Your task to perform on an android device: Search for cool wooden wall art on Etsy. Image 0: 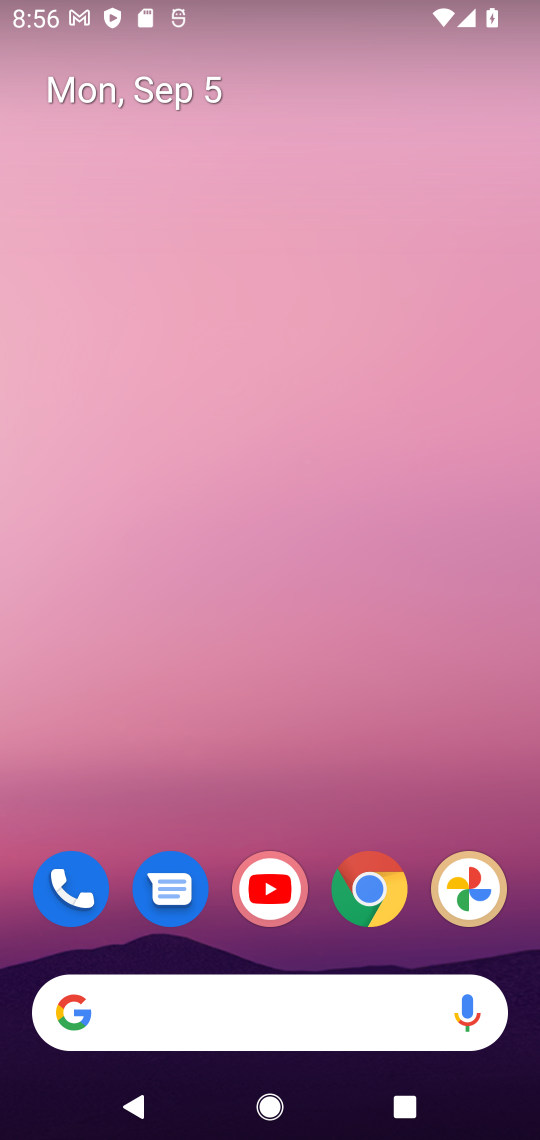
Step 0: click (242, 1022)
Your task to perform on an android device: Search for cool wooden wall art on Etsy. Image 1: 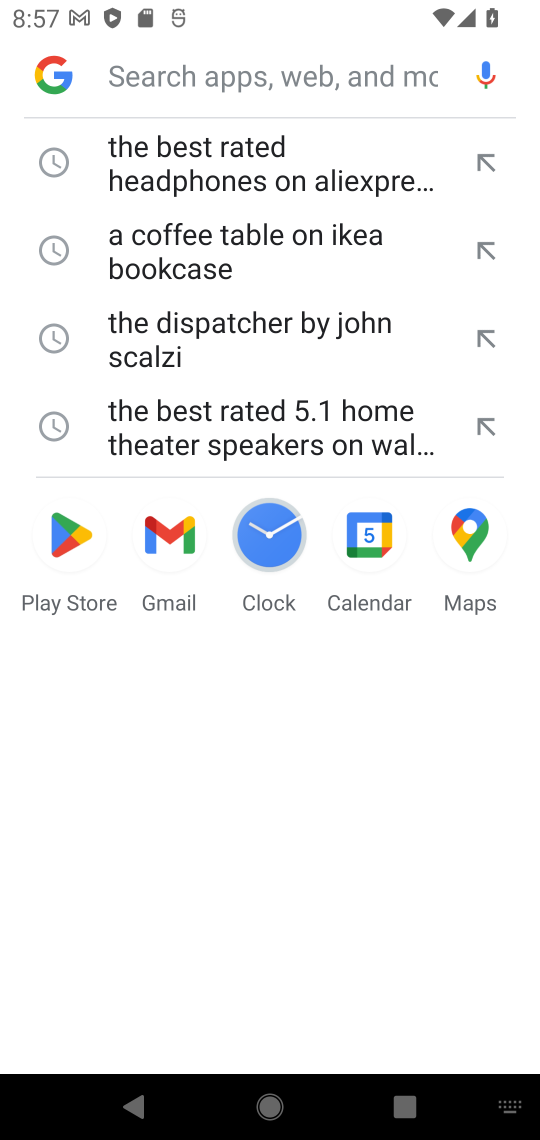
Step 1: type " cool wooden wall art on Etsy"
Your task to perform on an android device: Search for cool wooden wall art on Etsy. Image 2: 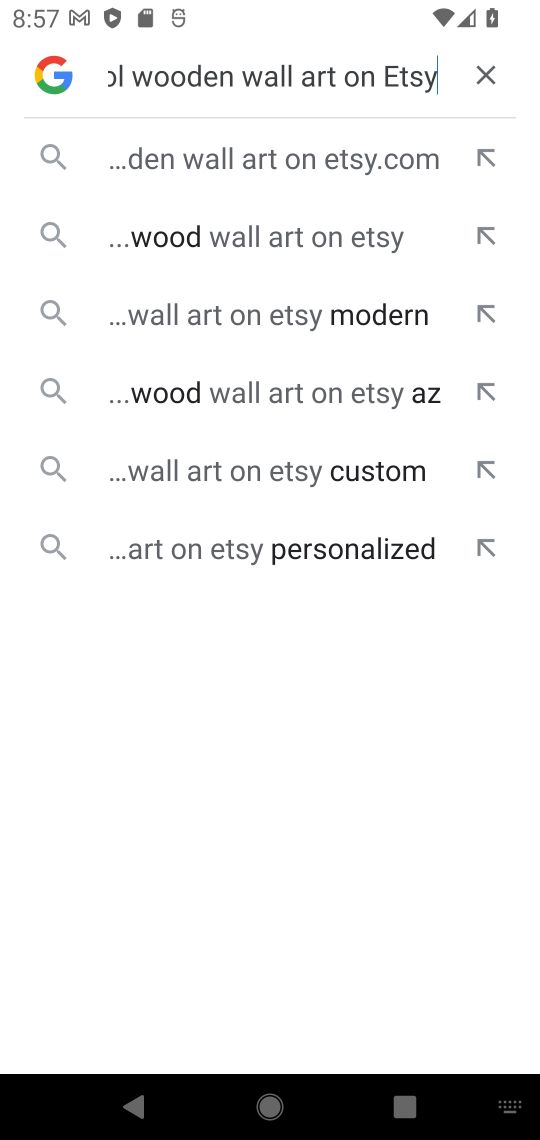
Step 2: click (162, 147)
Your task to perform on an android device: Search for cool wooden wall art on Etsy. Image 3: 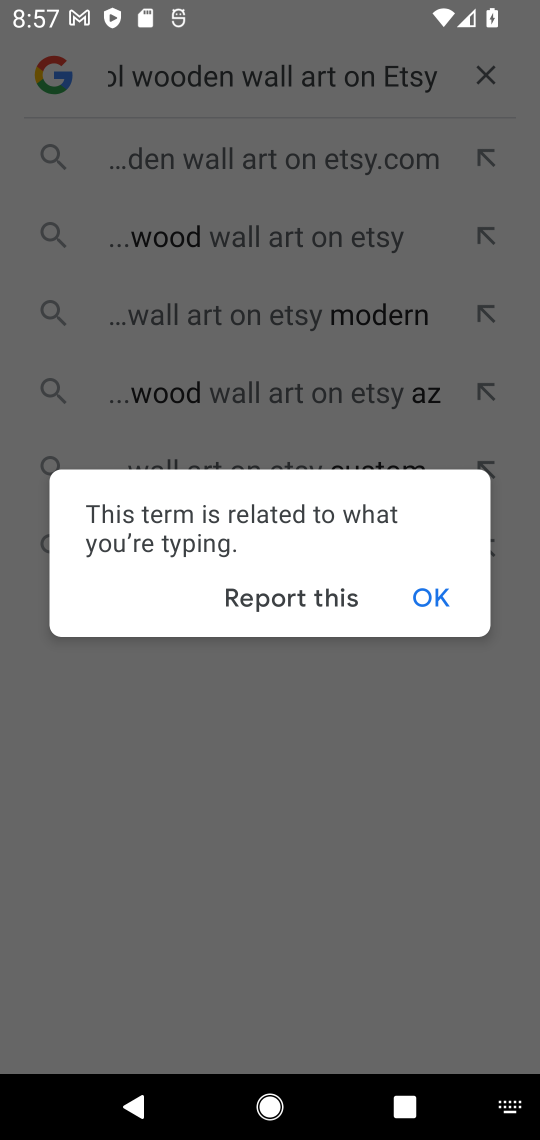
Step 3: click (432, 595)
Your task to perform on an android device: Search for cool wooden wall art on Etsy. Image 4: 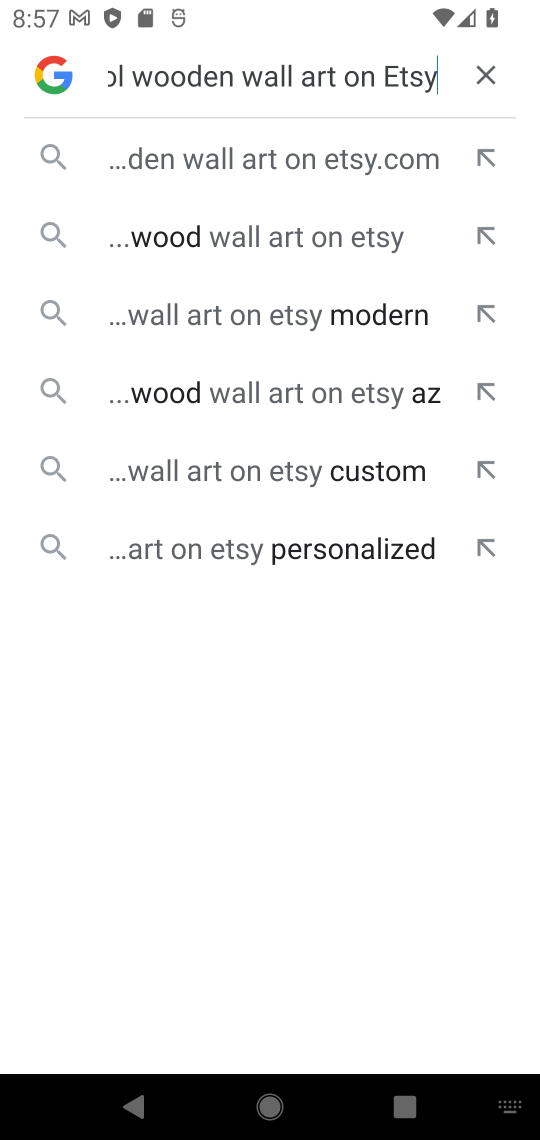
Step 4: click (250, 169)
Your task to perform on an android device: Search for cool wooden wall art on Etsy. Image 5: 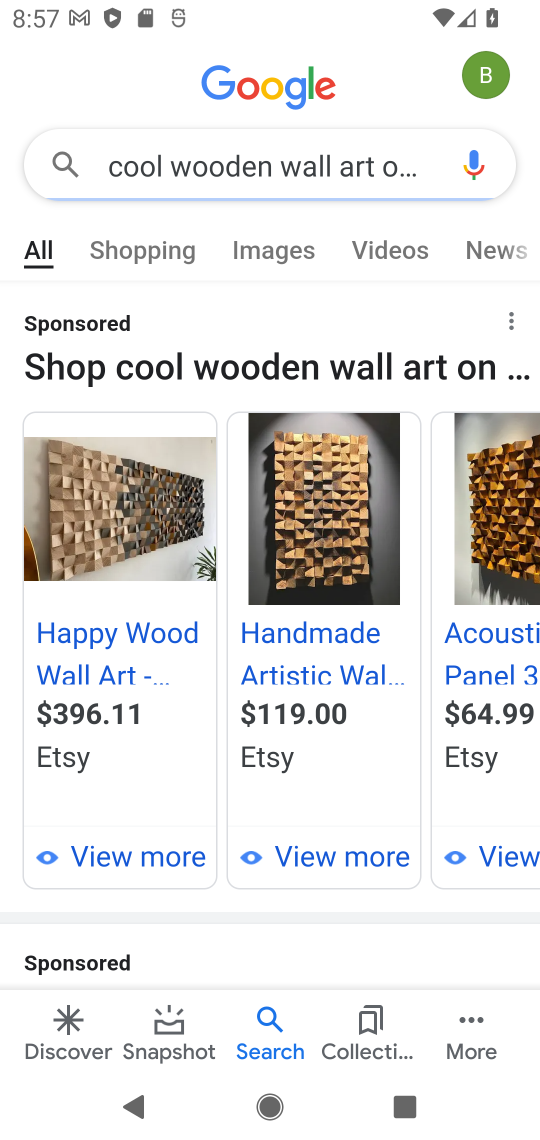
Step 5: task complete